Your task to perform on an android device: What is the recent news? Image 0: 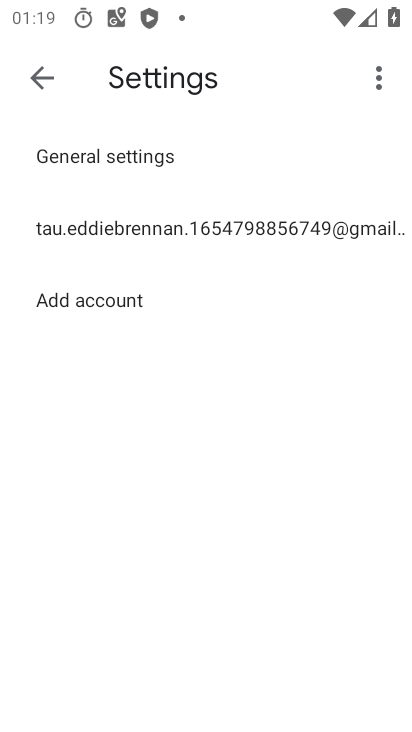
Step 0: press back button
Your task to perform on an android device: What is the recent news? Image 1: 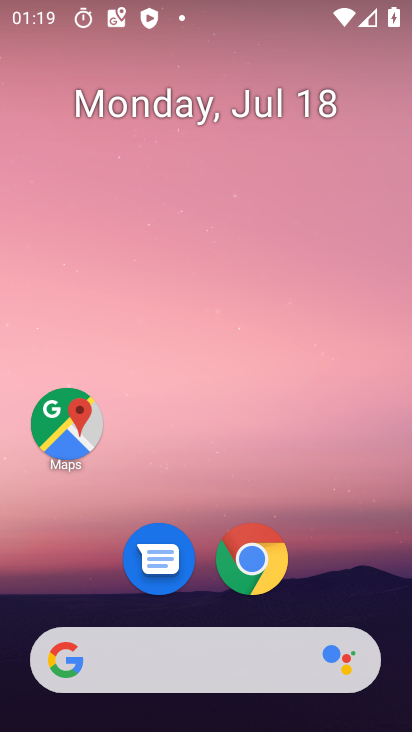
Step 1: click (164, 659)
Your task to perform on an android device: What is the recent news? Image 2: 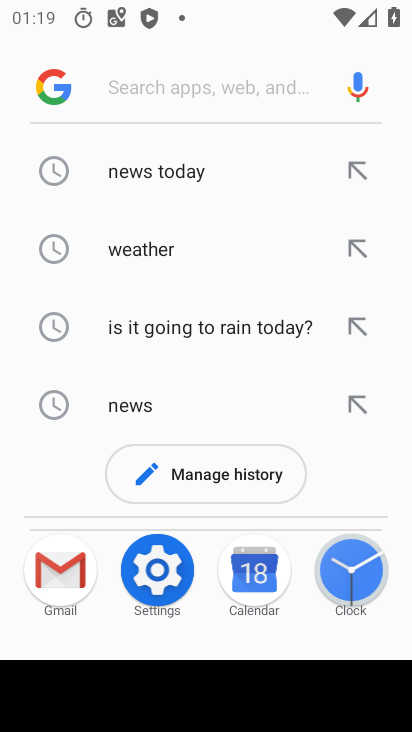
Step 2: click (167, 83)
Your task to perform on an android device: What is the recent news? Image 3: 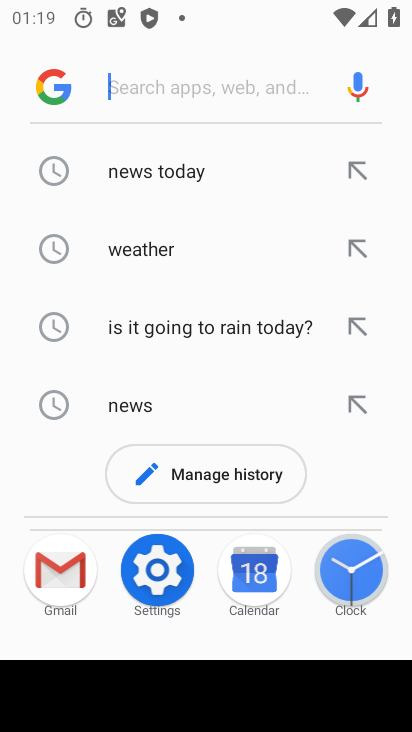
Step 3: type "recent news"
Your task to perform on an android device: What is the recent news? Image 4: 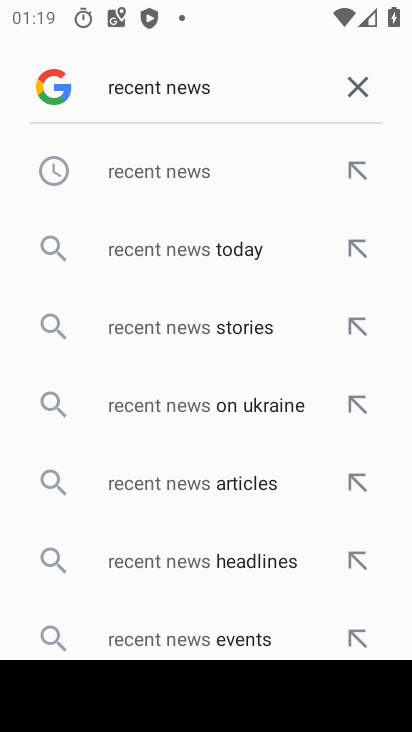
Step 4: click (206, 169)
Your task to perform on an android device: What is the recent news? Image 5: 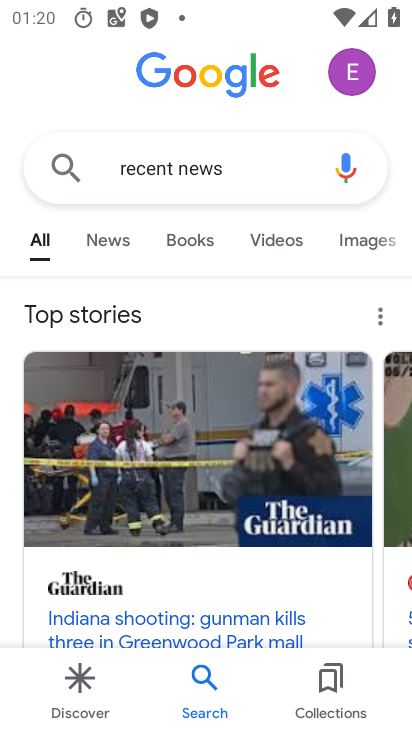
Step 5: task complete